Your task to perform on an android device: turn on sleep mode Image 0: 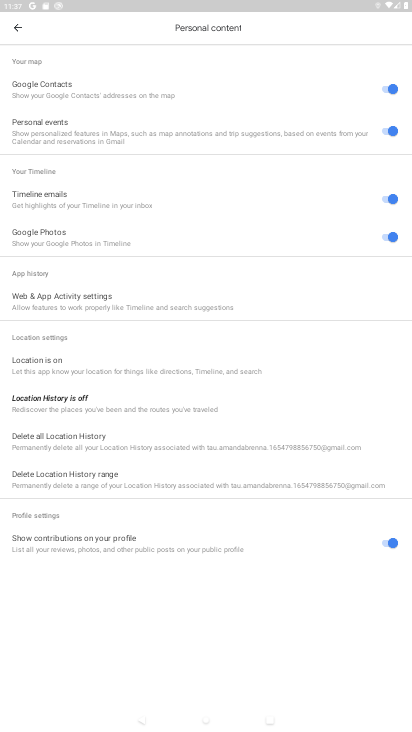
Step 0: press home button
Your task to perform on an android device: turn on sleep mode Image 1: 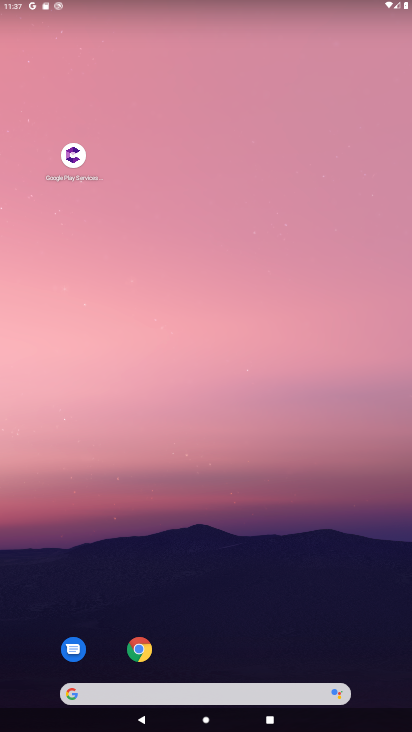
Step 1: drag from (249, 630) to (167, 4)
Your task to perform on an android device: turn on sleep mode Image 2: 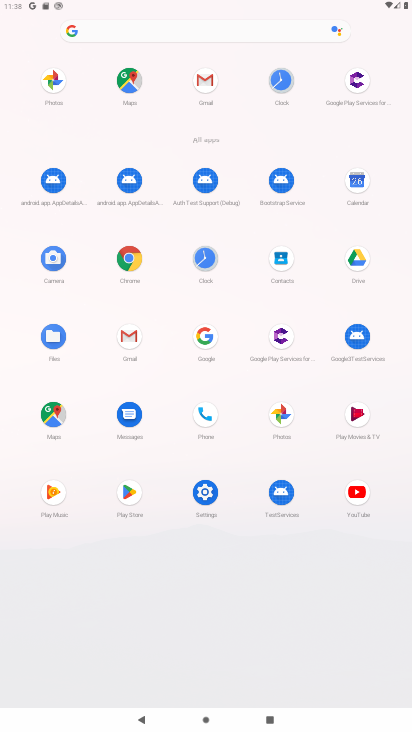
Step 2: click (202, 494)
Your task to perform on an android device: turn on sleep mode Image 3: 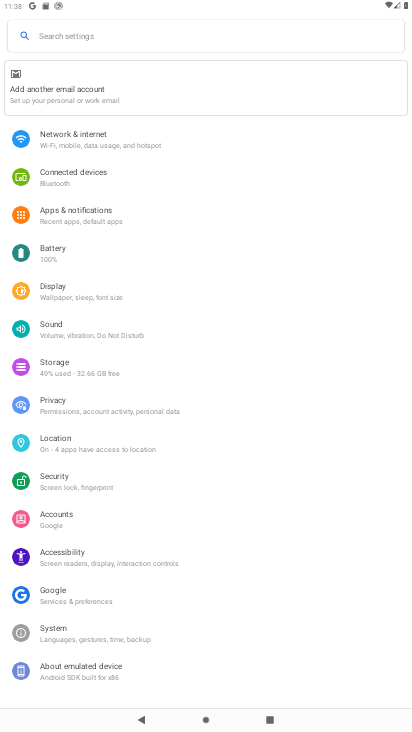
Step 3: click (114, 284)
Your task to perform on an android device: turn on sleep mode Image 4: 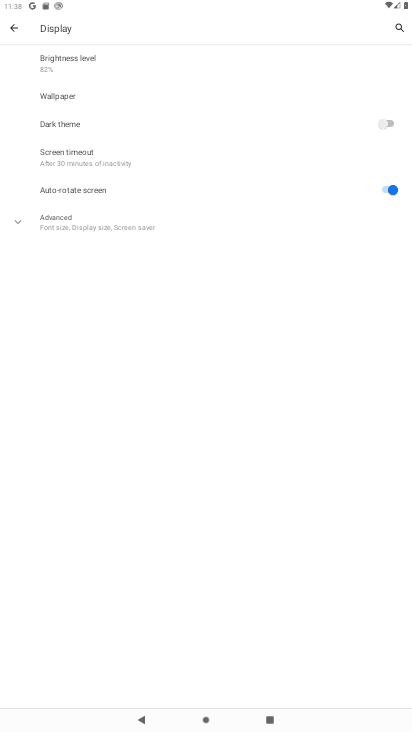
Step 4: click (172, 226)
Your task to perform on an android device: turn on sleep mode Image 5: 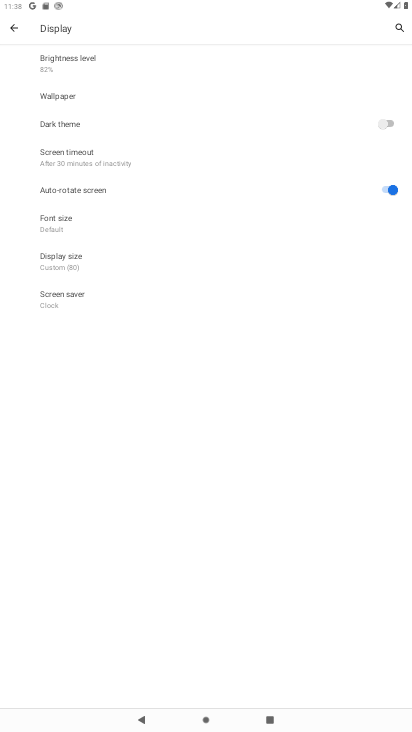
Step 5: task complete